Your task to perform on an android device: Open the calendar app, open the side menu, and click the "Day" option Image 0: 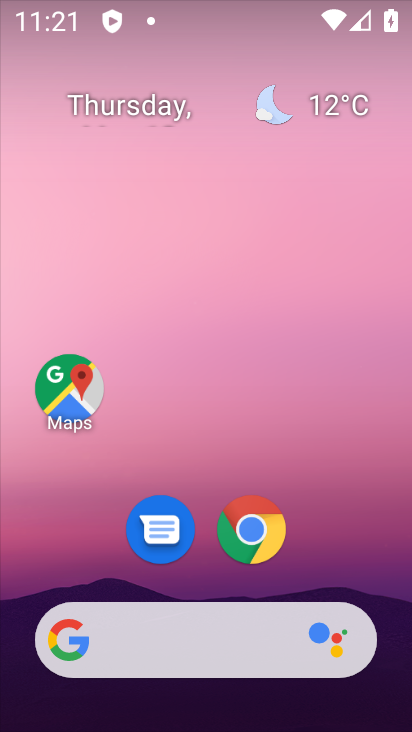
Step 0: drag from (334, 442) to (298, 166)
Your task to perform on an android device: Open the calendar app, open the side menu, and click the "Day" option Image 1: 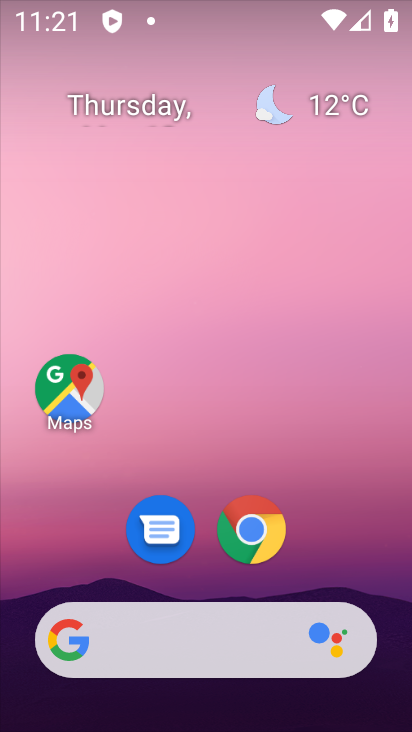
Step 1: drag from (325, 426) to (319, 195)
Your task to perform on an android device: Open the calendar app, open the side menu, and click the "Day" option Image 2: 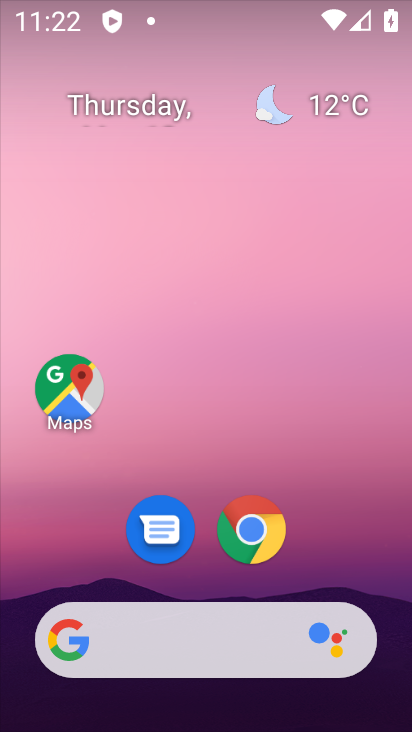
Step 2: drag from (341, 590) to (288, 163)
Your task to perform on an android device: Open the calendar app, open the side menu, and click the "Day" option Image 3: 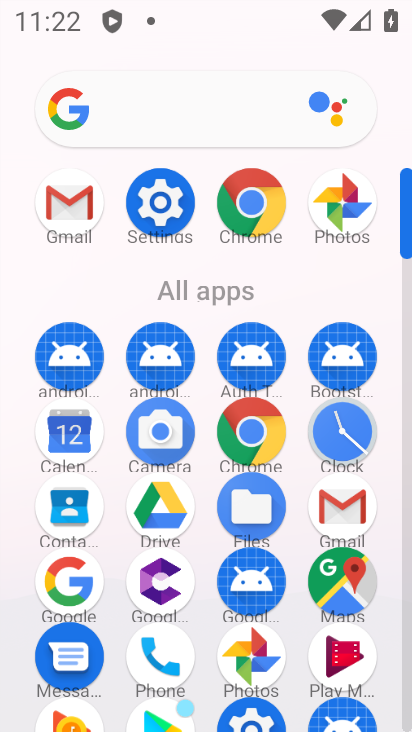
Step 3: drag from (283, 638) to (291, 317)
Your task to perform on an android device: Open the calendar app, open the side menu, and click the "Day" option Image 4: 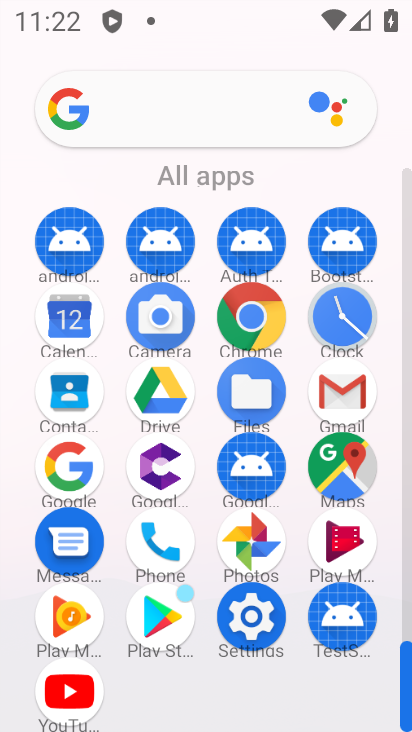
Step 4: click (60, 316)
Your task to perform on an android device: Open the calendar app, open the side menu, and click the "Day" option Image 5: 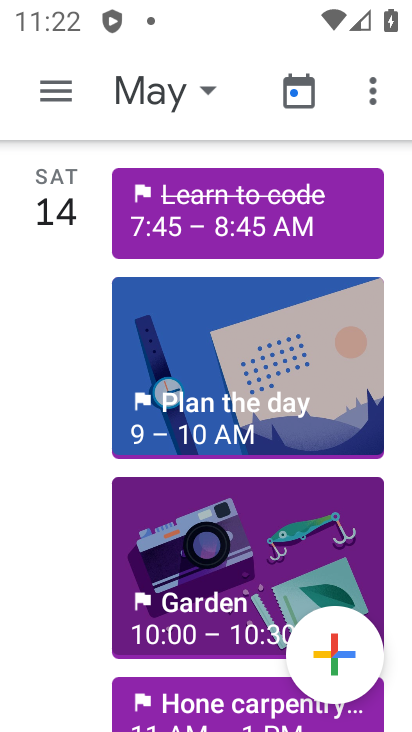
Step 5: click (44, 78)
Your task to perform on an android device: Open the calendar app, open the side menu, and click the "Day" option Image 6: 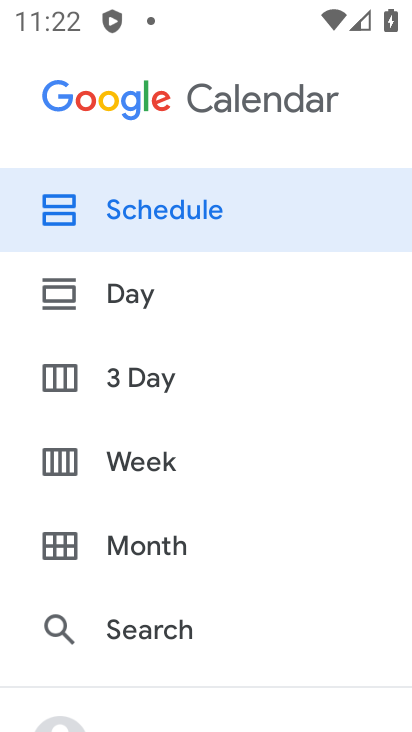
Step 6: click (133, 297)
Your task to perform on an android device: Open the calendar app, open the side menu, and click the "Day" option Image 7: 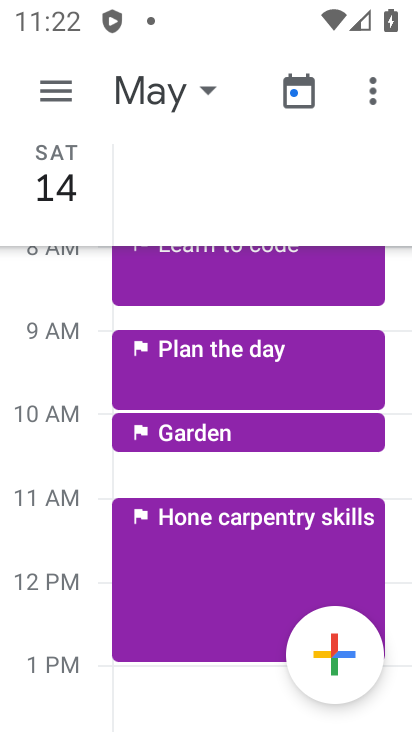
Step 7: task complete